Your task to perform on an android device: Open eBay Image 0: 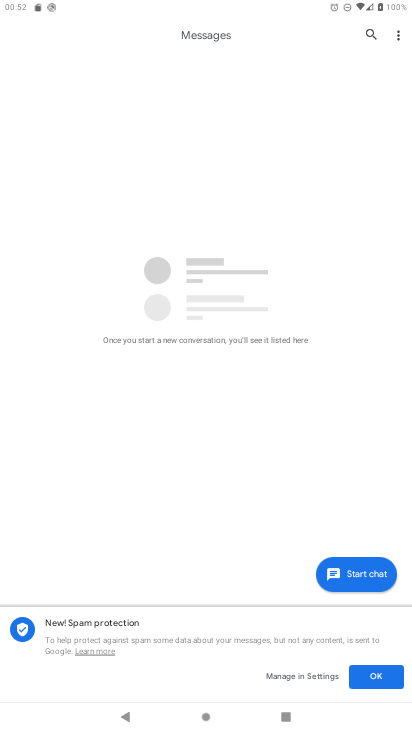
Step 0: press home button
Your task to perform on an android device: Open eBay Image 1: 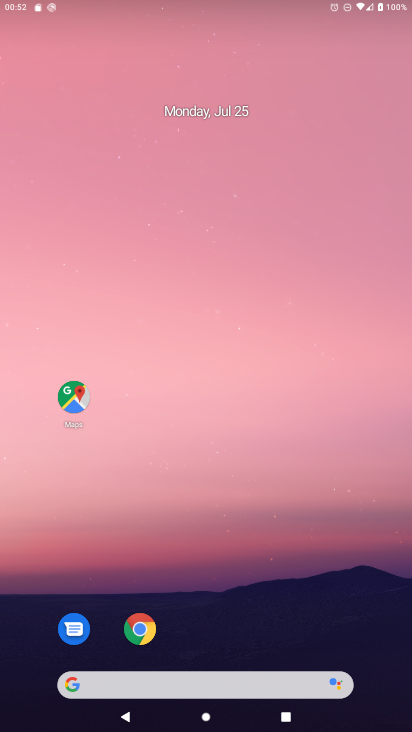
Step 1: drag from (192, 624) to (231, 119)
Your task to perform on an android device: Open eBay Image 2: 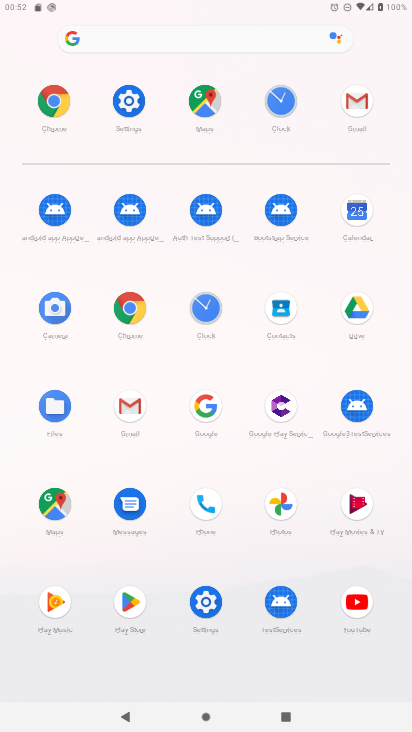
Step 2: click (158, 40)
Your task to perform on an android device: Open eBay Image 3: 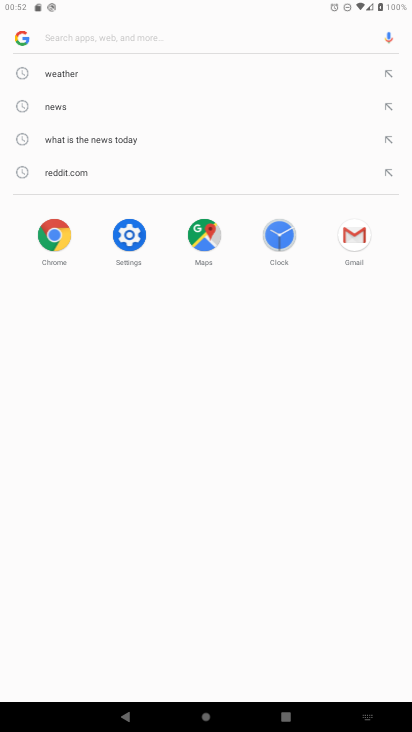
Step 3: type "eBay"
Your task to perform on an android device: Open eBay Image 4: 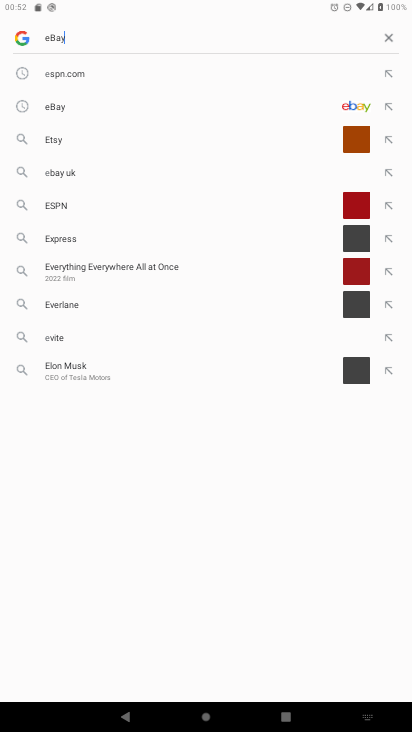
Step 4: type ""
Your task to perform on an android device: Open eBay Image 5: 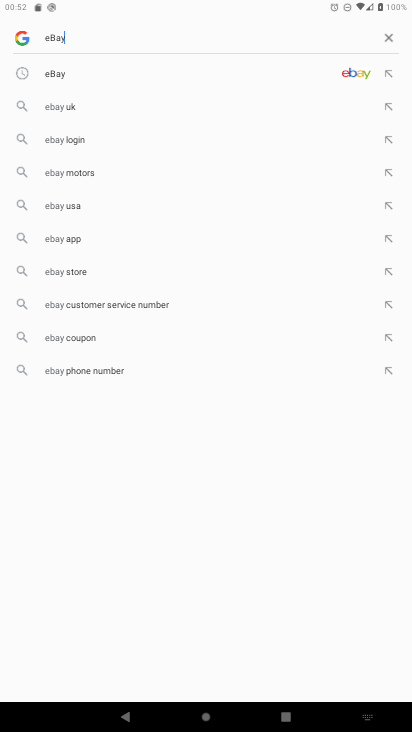
Step 5: click (86, 77)
Your task to perform on an android device: Open eBay Image 6: 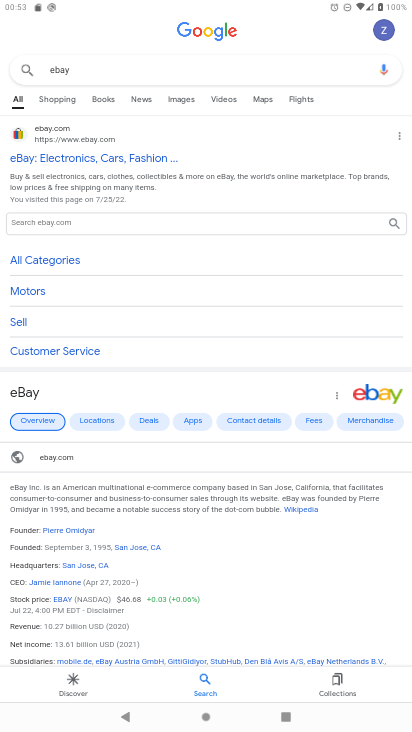
Step 6: click (30, 163)
Your task to perform on an android device: Open eBay Image 7: 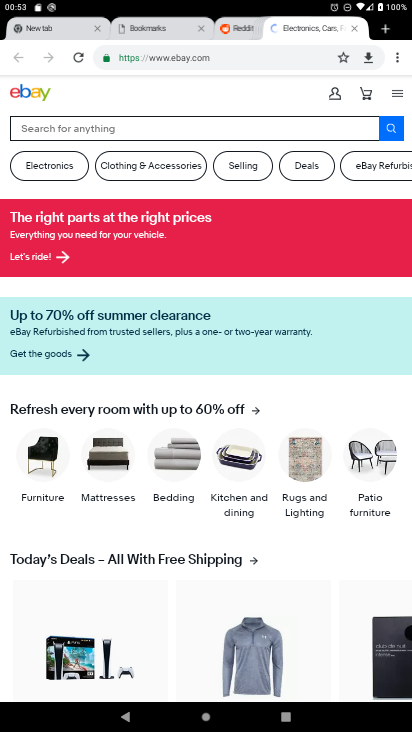
Step 7: click (213, 398)
Your task to perform on an android device: Open eBay Image 8: 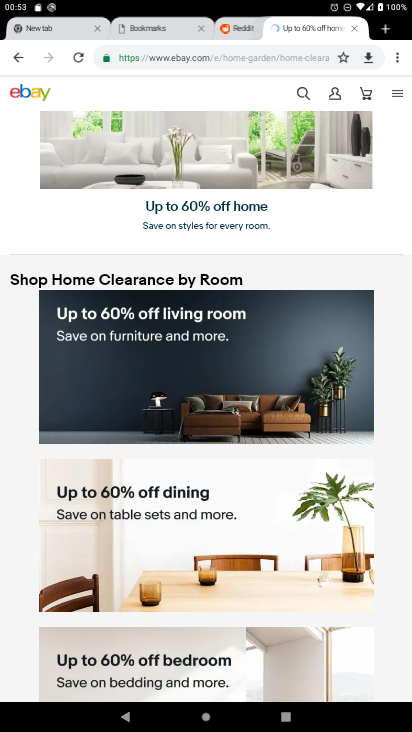
Step 8: task complete